Your task to perform on an android device: turn off location history Image 0: 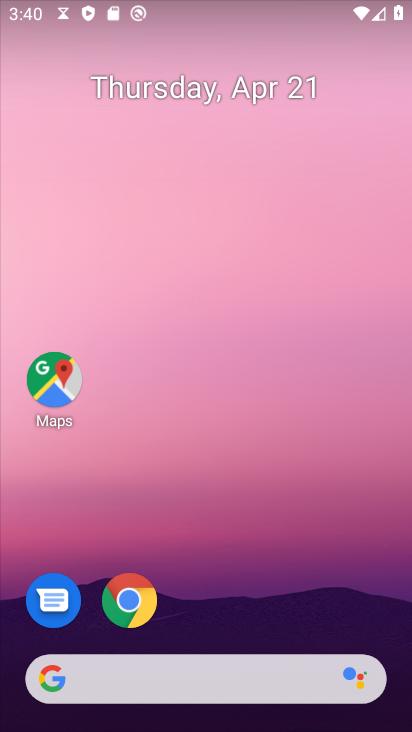
Step 0: drag from (220, 620) to (216, 77)
Your task to perform on an android device: turn off location history Image 1: 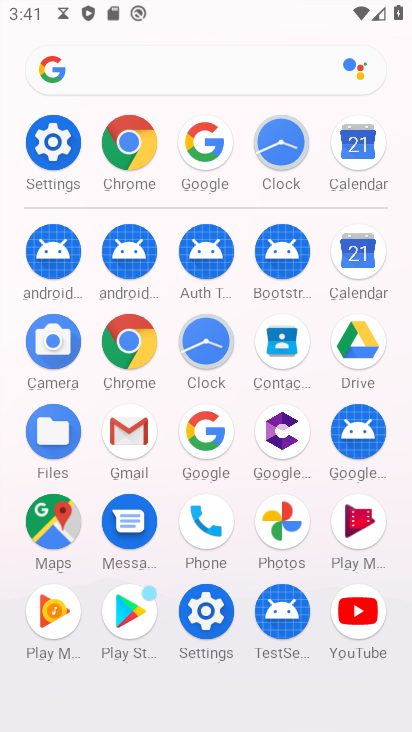
Step 1: click (53, 144)
Your task to perform on an android device: turn off location history Image 2: 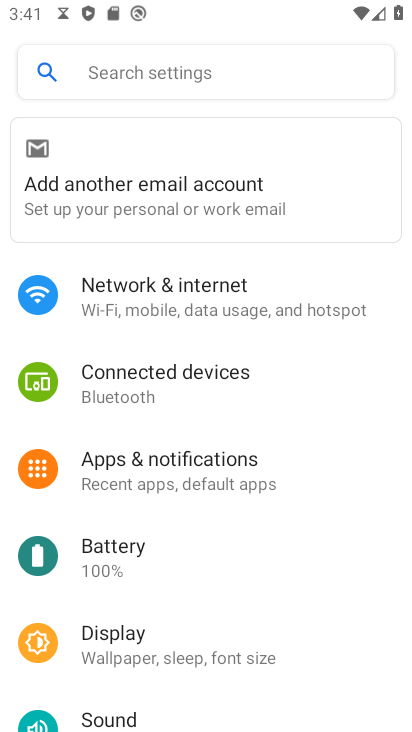
Step 2: drag from (165, 514) to (171, 311)
Your task to perform on an android device: turn off location history Image 3: 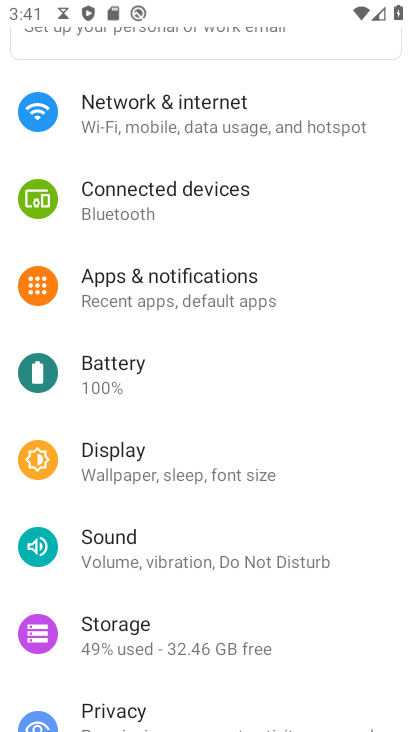
Step 3: drag from (180, 421) to (230, 256)
Your task to perform on an android device: turn off location history Image 4: 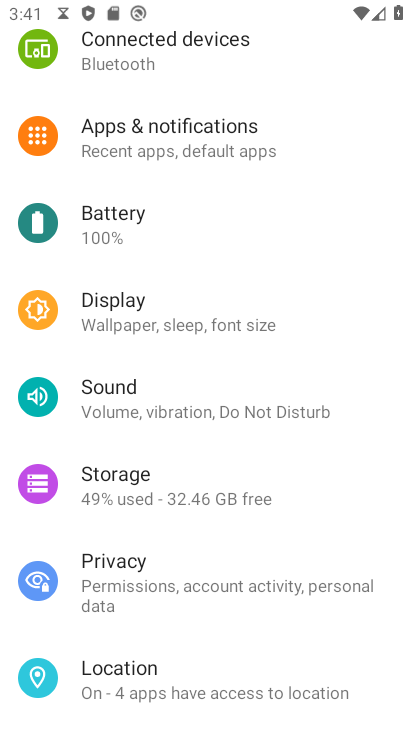
Step 4: drag from (189, 381) to (275, 192)
Your task to perform on an android device: turn off location history Image 5: 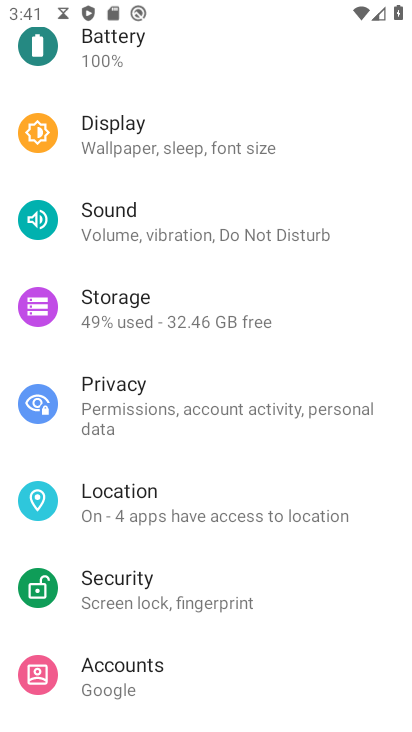
Step 5: click (124, 489)
Your task to perform on an android device: turn off location history Image 6: 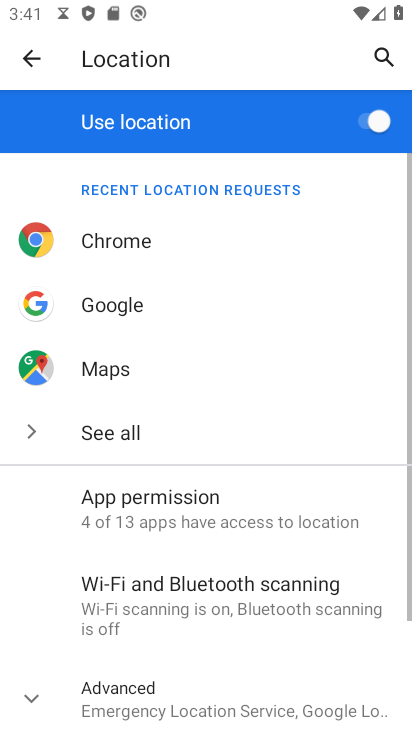
Step 6: drag from (212, 639) to (235, 444)
Your task to perform on an android device: turn off location history Image 7: 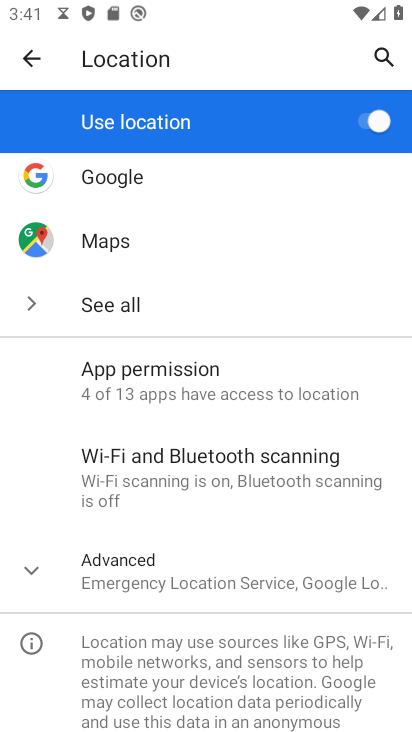
Step 7: click (230, 574)
Your task to perform on an android device: turn off location history Image 8: 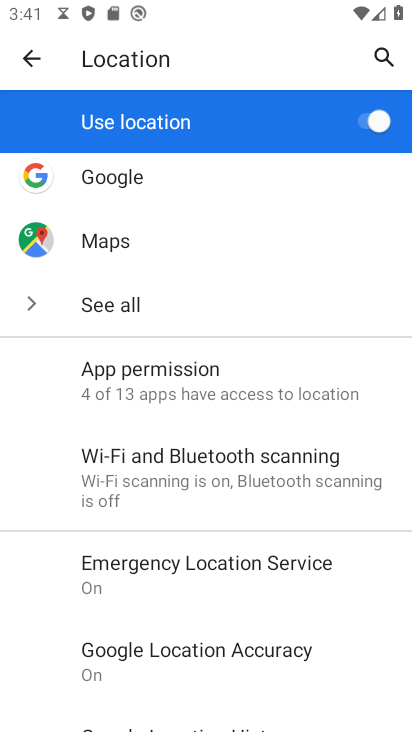
Step 8: task complete